Your task to perform on an android device: create a new album in the google photos Image 0: 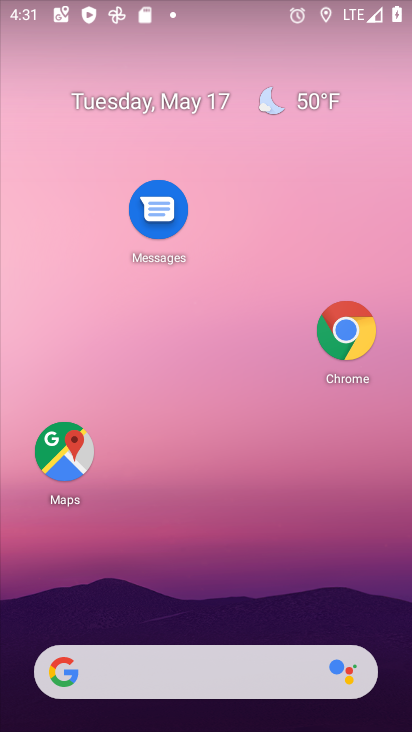
Step 0: drag from (248, 615) to (146, 183)
Your task to perform on an android device: create a new album in the google photos Image 1: 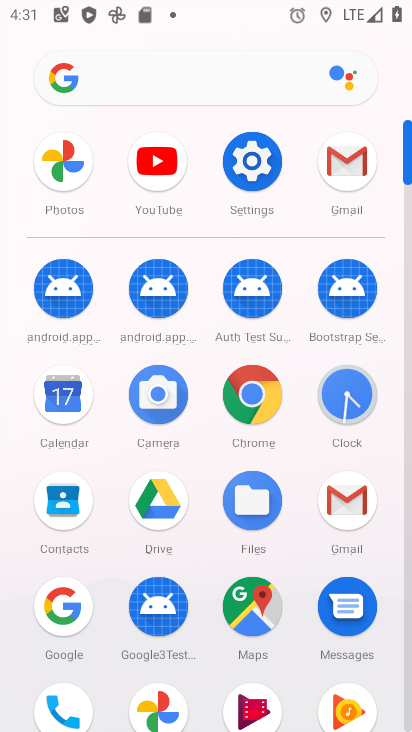
Step 1: click (73, 203)
Your task to perform on an android device: create a new album in the google photos Image 2: 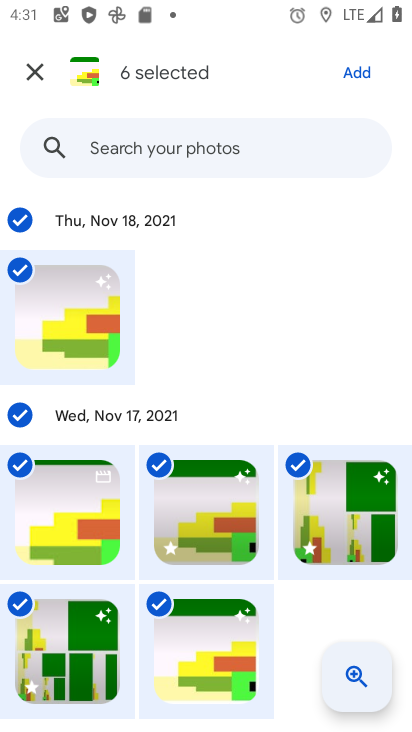
Step 2: click (347, 68)
Your task to perform on an android device: create a new album in the google photos Image 3: 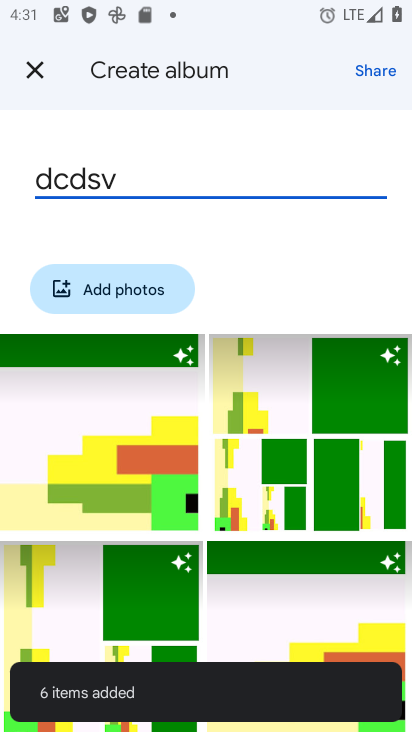
Step 3: task complete